Your task to perform on an android device: Show me the best 1080p monitor on Target.com Image 0: 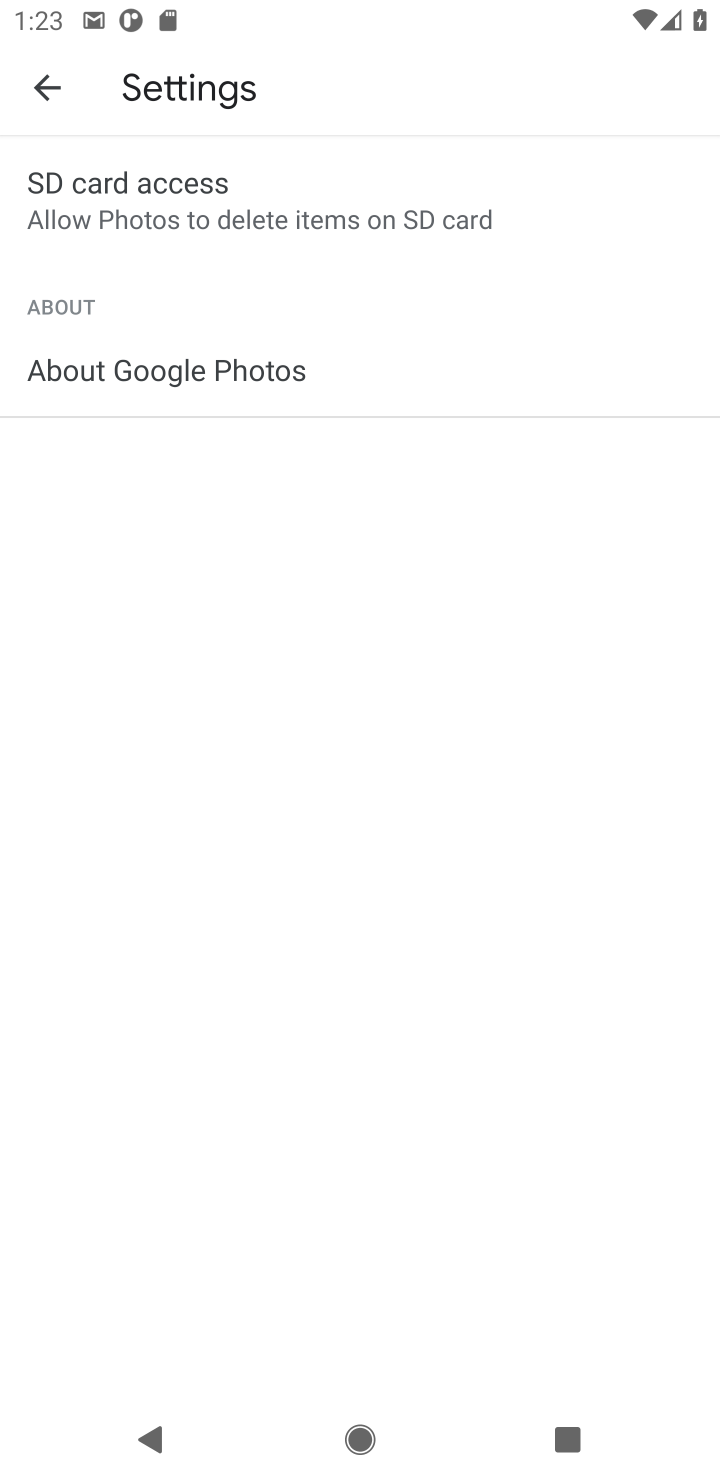
Step 0: press home button
Your task to perform on an android device: Show me the best 1080p monitor on Target.com Image 1: 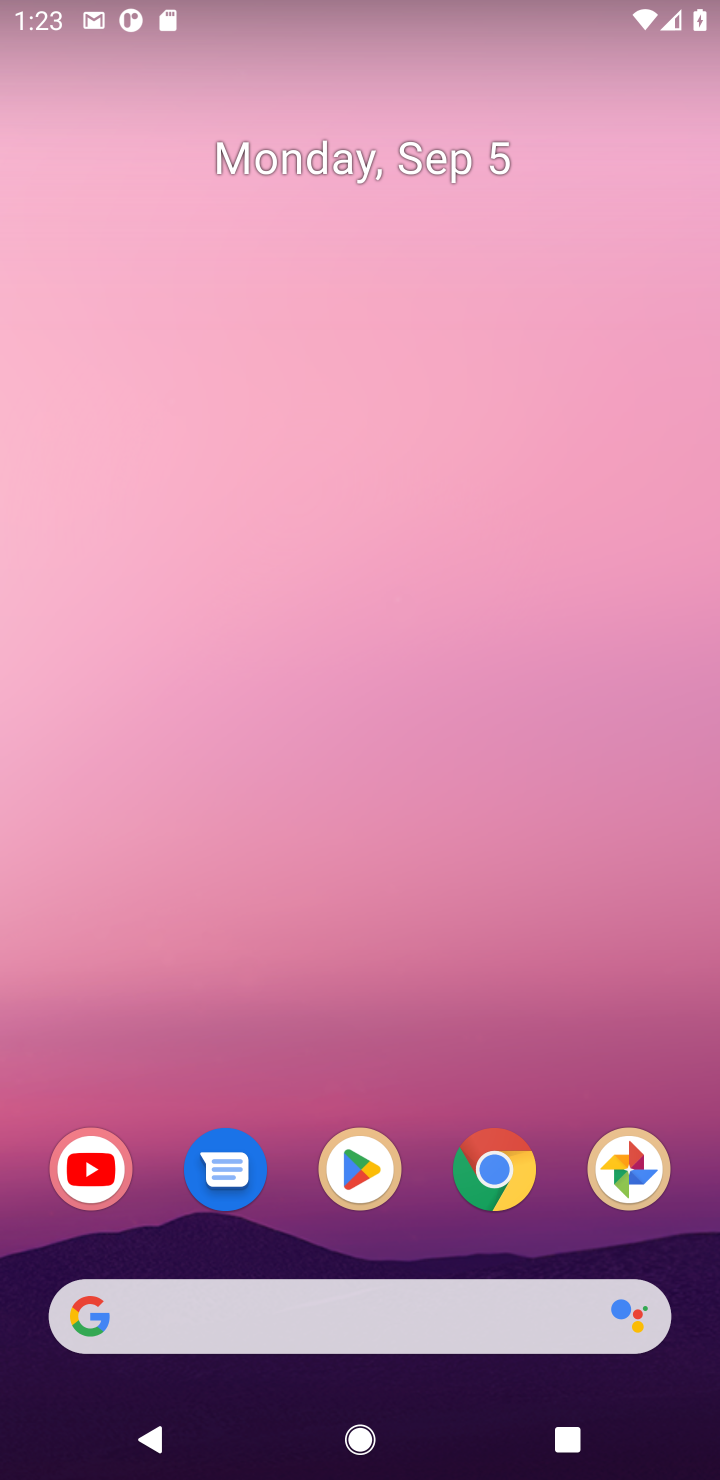
Step 1: click (76, 1177)
Your task to perform on an android device: Show me the best 1080p monitor on Target.com Image 2: 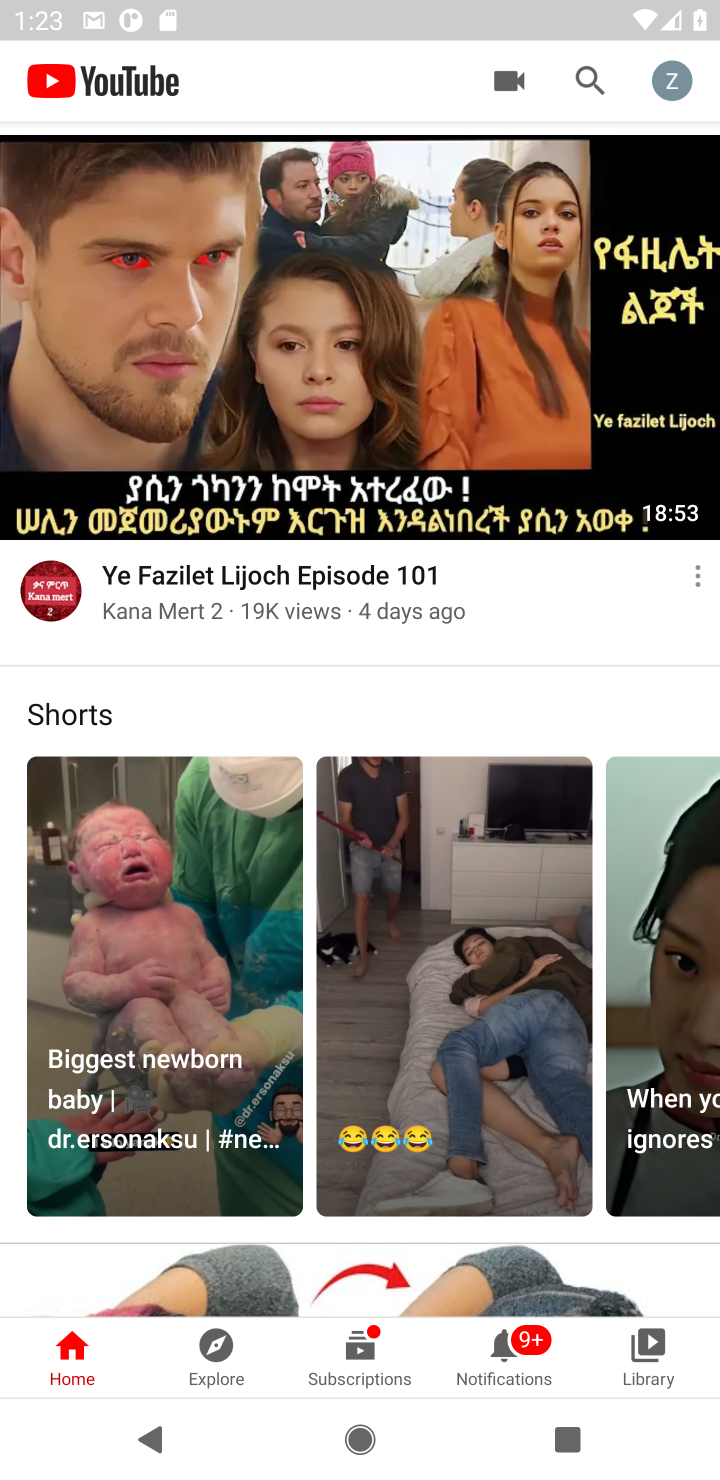
Step 2: drag from (308, 946) to (349, 117)
Your task to perform on an android device: Show me the best 1080p monitor on Target.com Image 3: 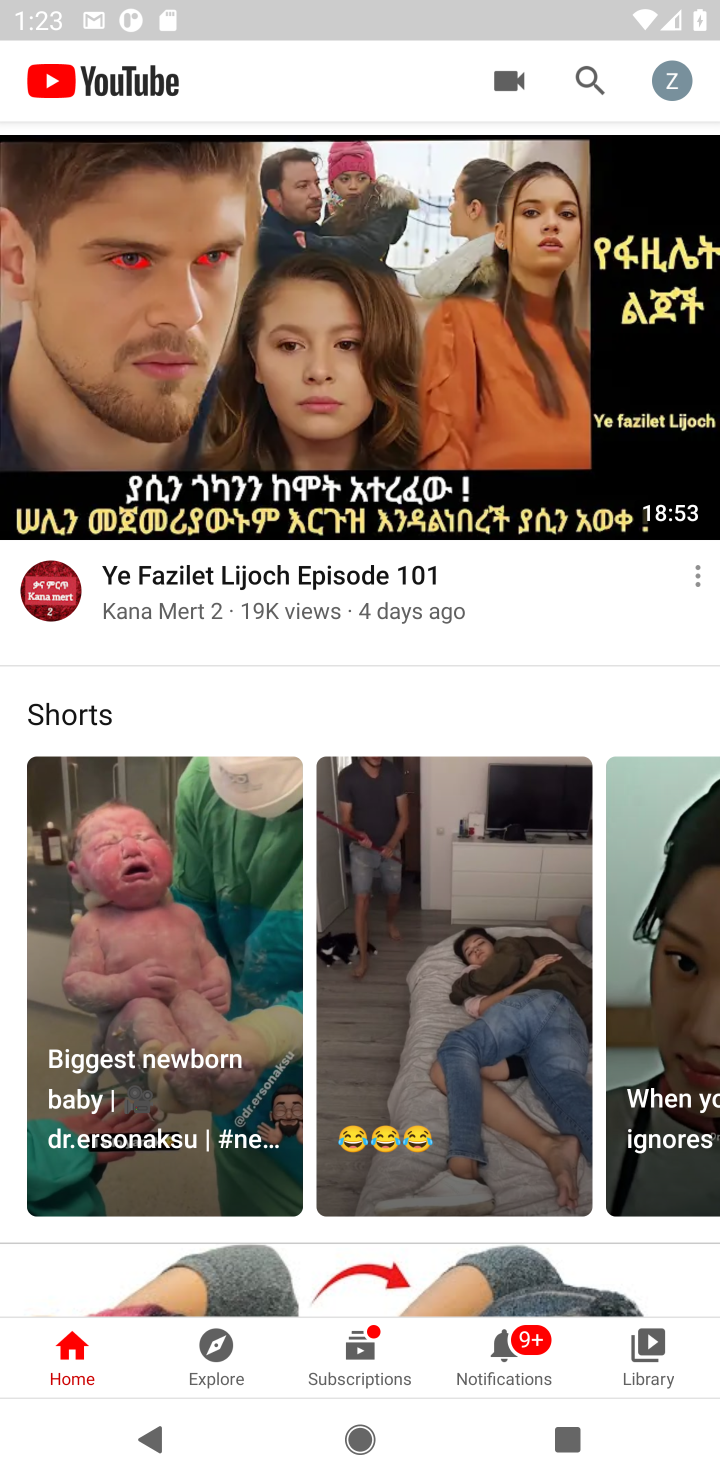
Step 3: click (364, 1376)
Your task to perform on an android device: Show me the best 1080p monitor on Target.com Image 4: 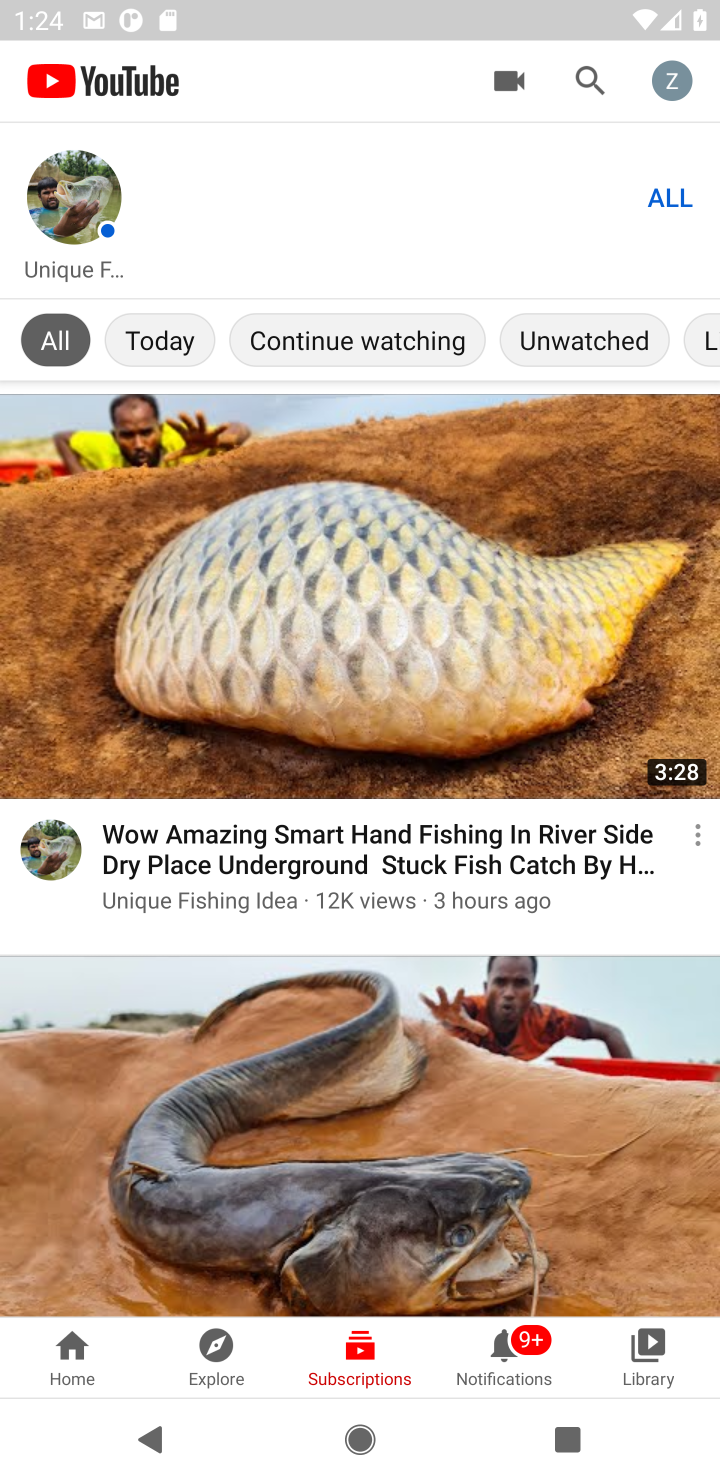
Step 4: task complete